Your task to perform on an android device: open chrome and create a bookmark for the current page Image 0: 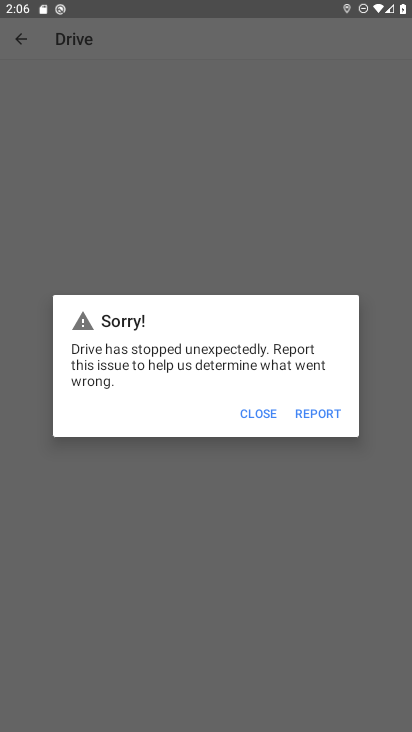
Step 0: press home button
Your task to perform on an android device: open chrome and create a bookmark for the current page Image 1: 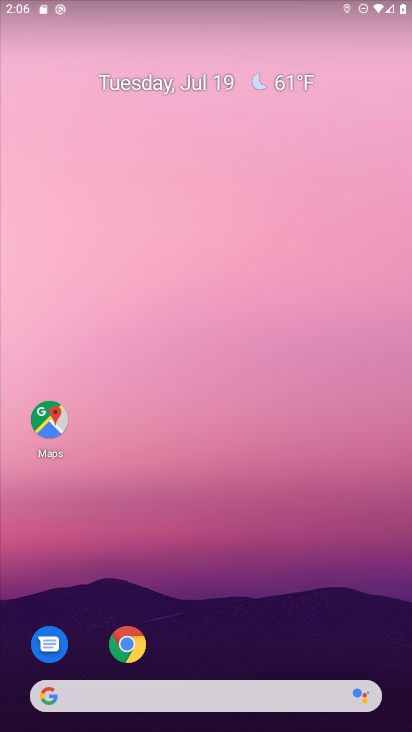
Step 1: drag from (206, 660) to (128, 108)
Your task to perform on an android device: open chrome and create a bookmark for the current page Image 2: 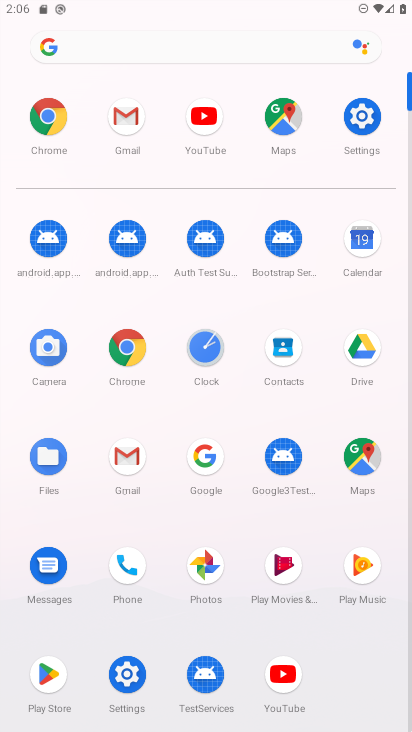
Step 2: click (132, 351)
Your task to perform on an android device: open chrome and create a bookmark for the current page Image 3: 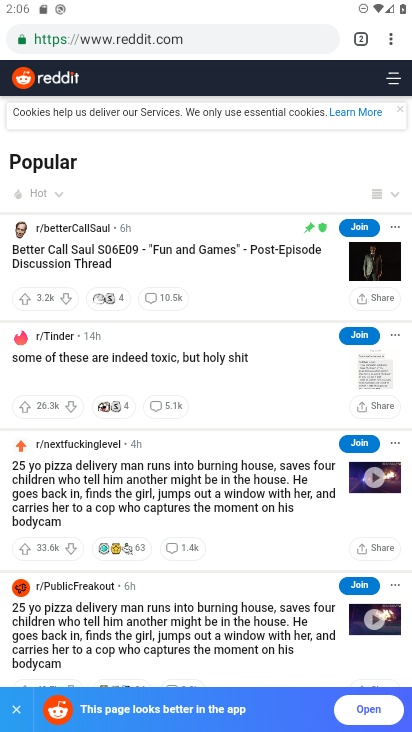
Step 3: task complete